Your task to perform on an android device: Show me productivity apps on the Play Store Image 0: 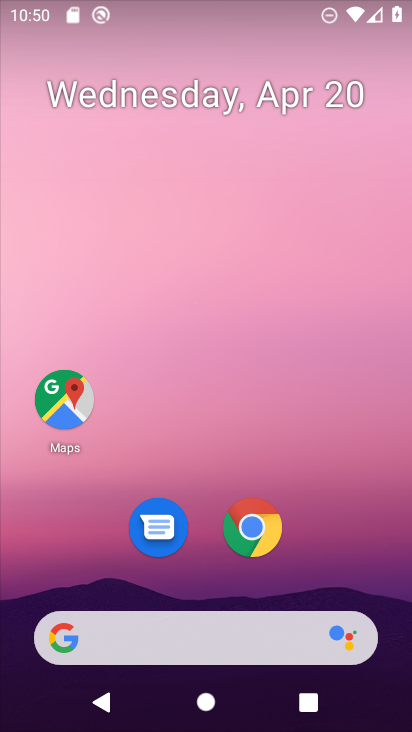
Step 0: drag from (204, 584) to (325, 0)
Your task to perform on an android device: Show me productivity apps on the Play Store Image 1: 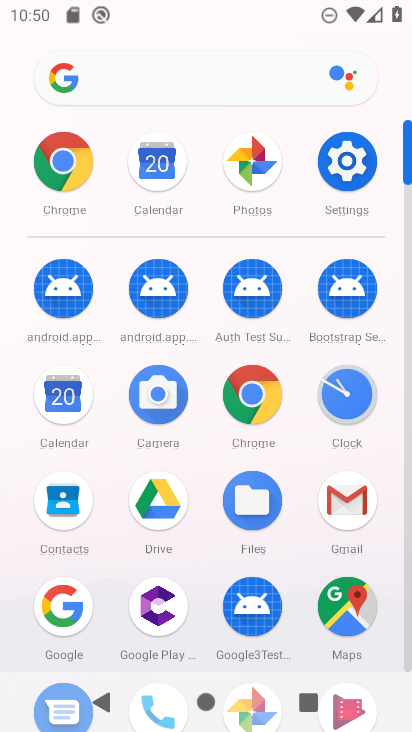
Step 1: drag from (208, 566) to (220, 347)
Your task to perform on an android device: Show me productivity apps on the Play Store Image 2: 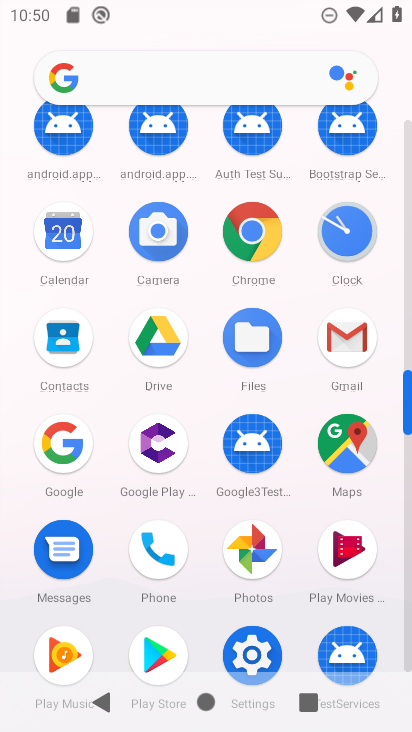
Step 2: click (152, 649)
Your task to perform on an android device: Show me productivity apps on the Play Store Image 3: 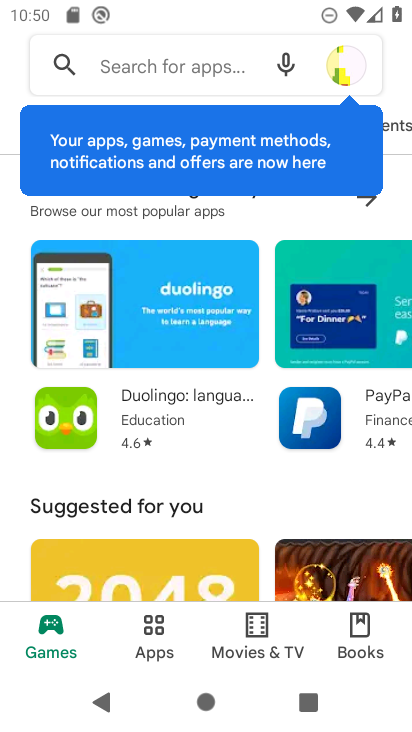
Step 3: click (141, 633)
Your task to perform on an android device: Show me productivity apps on the Play Store Image 4: 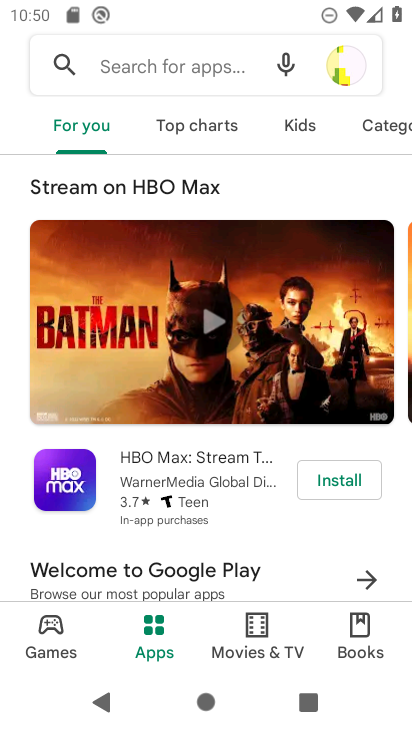
Step 4: drag from (374, 128) to (54, 106)
Your task to perform on an android device: Show me productivity apps on the Play Store Image 5: 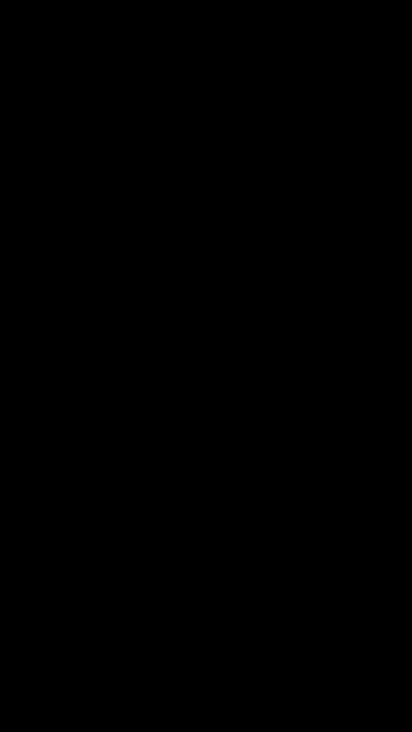
Step 5: drag from (274, 121) to (155, 105)
Your task to perform on an android device: Show me productivity apps on the Play Store Image 6: 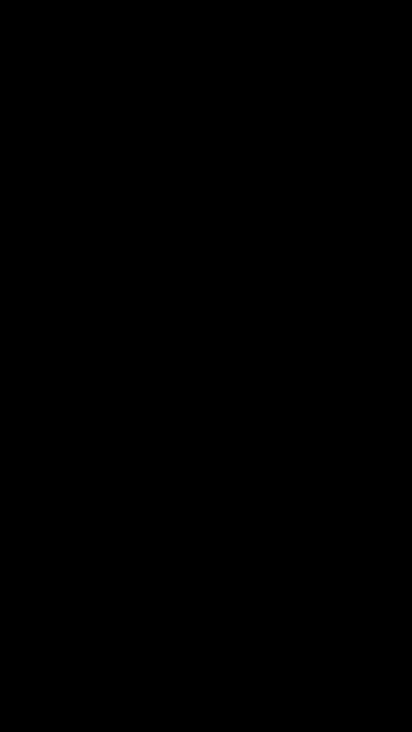
Step 6: drag from (175, 451) to (188, 221)
Your task to perform on an android device: Show me productivity apps on the Play Store Image 7: 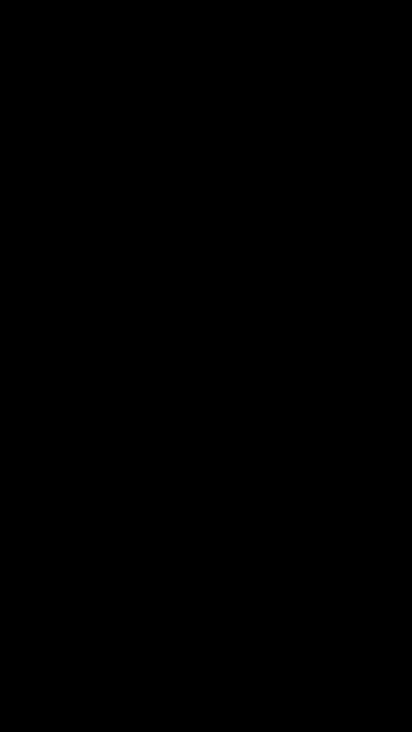
Step 7: drag from (203, 279) to (194, 493)
Your task to perform on an android device: Show me productivity apps on the Play Store Image 8: 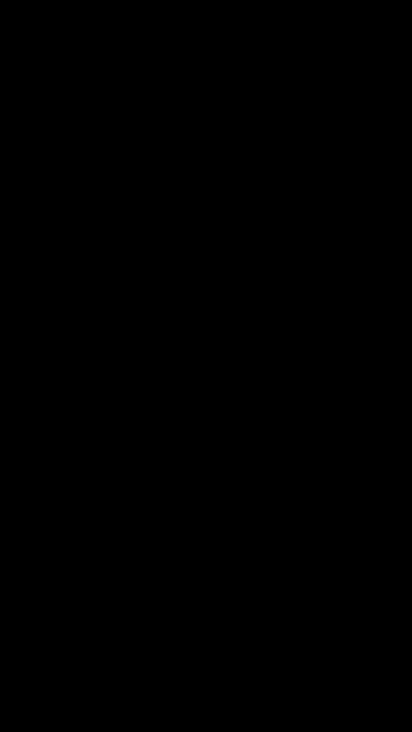
Step 8: drag from (301, 121) to (50, 100)
Your task to perform on an android device: Show me productivity apps on the Play Store Image 9: 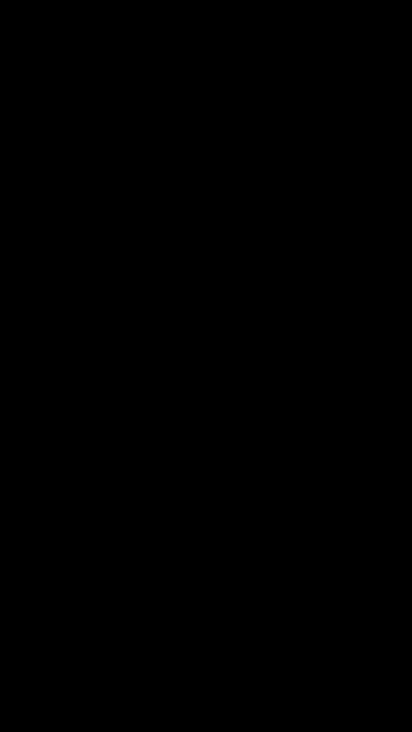
Step 9: drag from (293, 138) to (70, 103)
Your task to perform on an android device: Show me productivity apps on the Play Store Image 10: 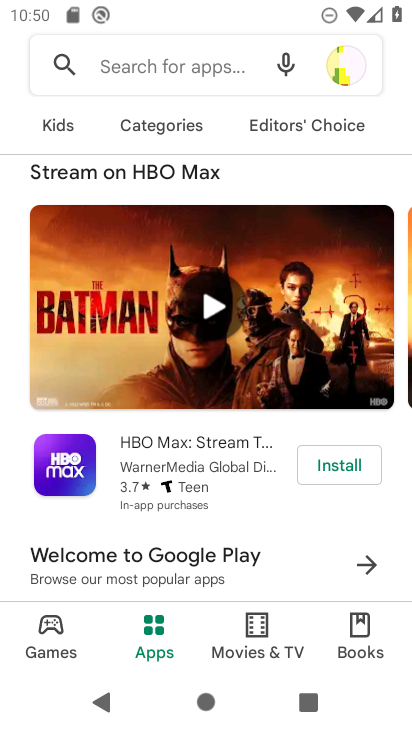
Step 10: drag from (299, 117) to (71, 98)
Your task to perform on an android device: Show me productivity apps on the Play Store Image 11: 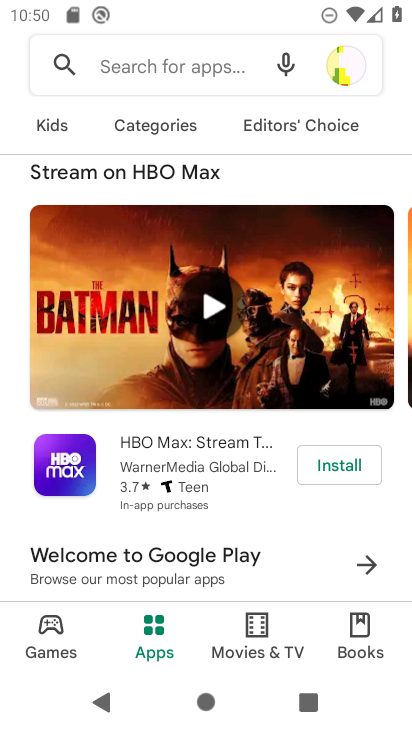
Step 11: click (132, 121)
Your task to perform on an android device: Show me productivity apps on the Play Store Image 12: 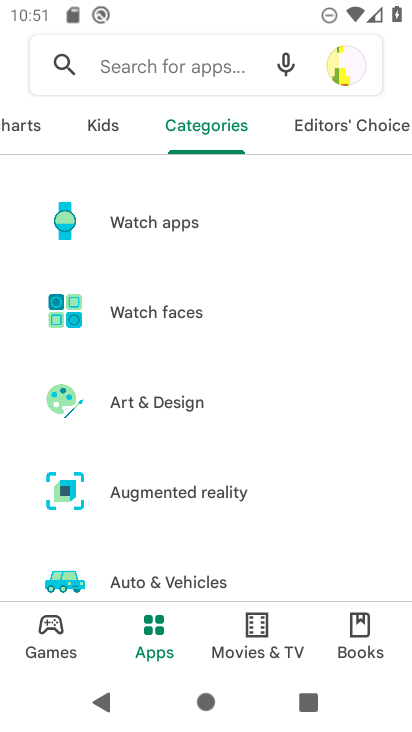
Step 12: drag from (173, 511) to (261, 126)
Your task to perform on an android device: Show me productivity apps on the Play Store Image 13: 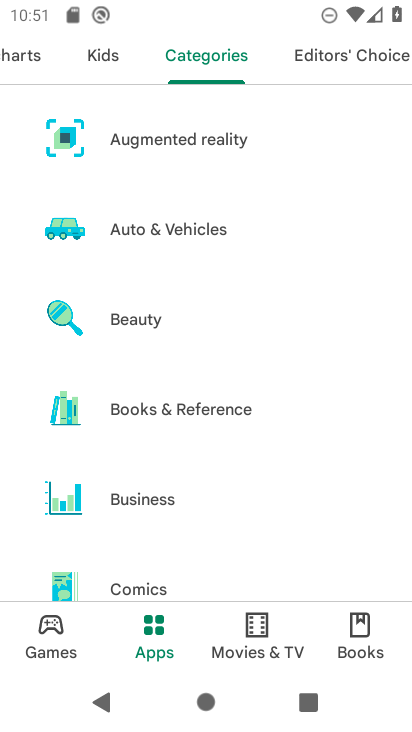
Step 13: drag from (190, 523) to (249, 36)
Your task to perform on an android device: Show me productivity apps on the Play Store Image 14: 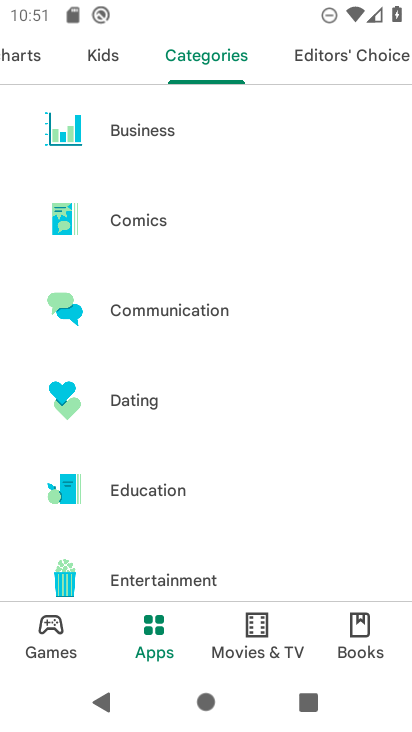
Step 14: drag from (159, 532) to (213, 138)
Your task to perform on an android device: Show me productivity apps on the Play Store Image 15: 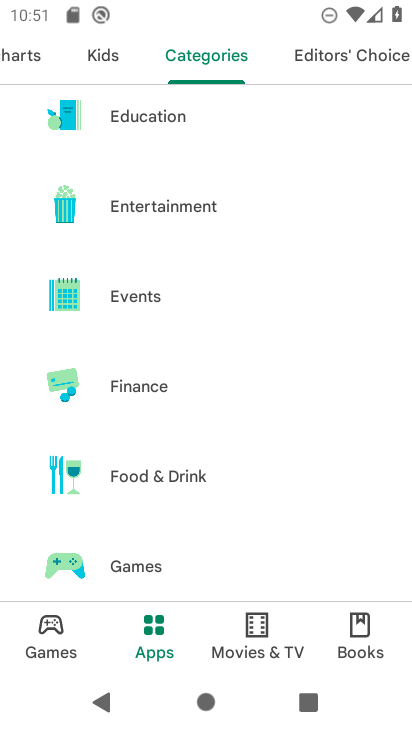
Step 15: drag from (139, 482) to (219, 192)
Your task to perform on an android device: Show me productivity apps on the Play Store Image 16: 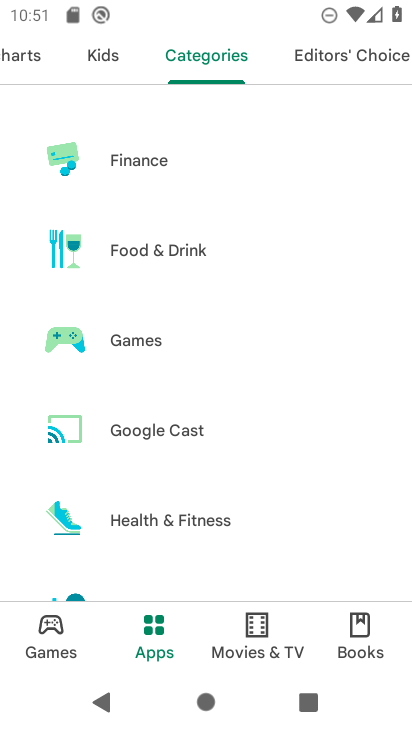
Step 16: drag from (164, 515) to (216, 202)
Your task to perform on an android device: Show me productivity apps on the Play Store Image 17: 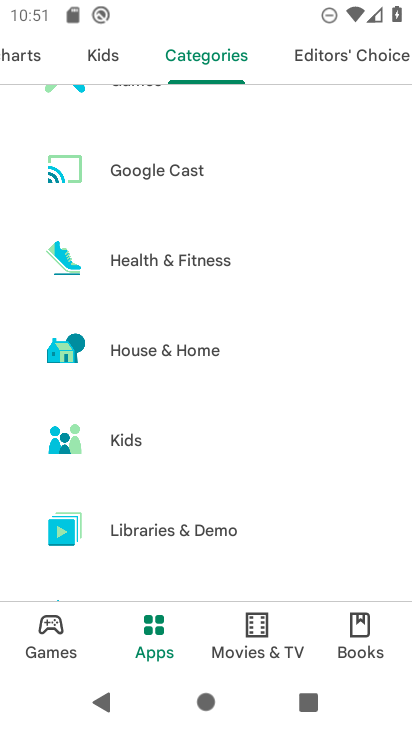
Step 17: drag from (148, 438) to (179, 235)
Your task to perform on an android device: Show me productivity apps on the Play Store Image 18: 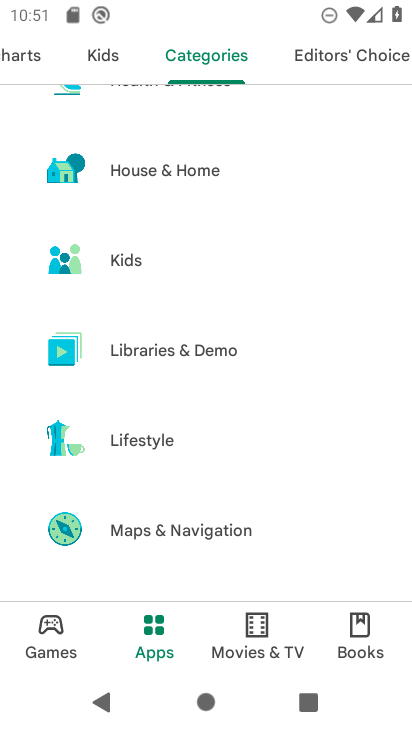
Step 18: drag from (152, 496) to (187, 224)
Your task to perform on an android device: Show me productivity apps on the Play Store Image 19: 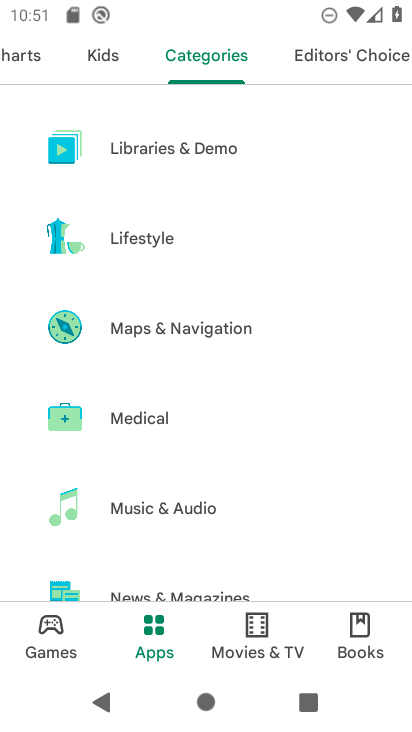
Step 19: drag from (178, 573) to (243, 274)
Your task to perform on an android device: Show me productivity apps on the Play Store Image 20: 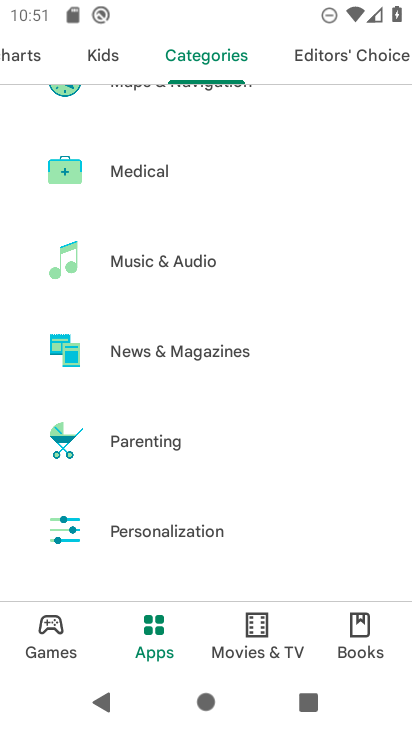
Step 20: drag from (159, 490) to (227, 170)
Your task to perform on an android device: Show me productivity apps on the Play Store Image 21: 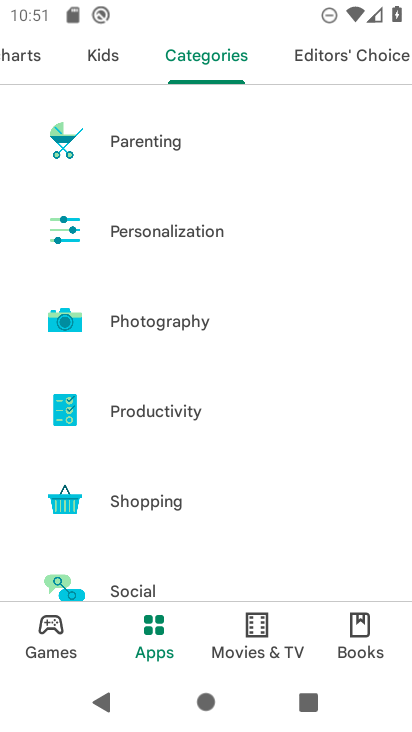
Step 21: drag from (130, 541) to (209, 207)
Your task to perform on an android device: Show me productivity apps on the Play Store Image 22: 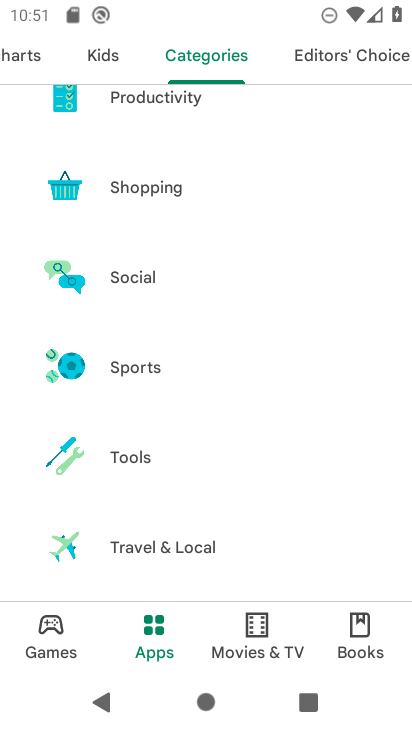
Step 22: drag from (144, 488) to (205, 202)
Your task to perform on an android device: Show me productivity apps on the Play Store Image 23: 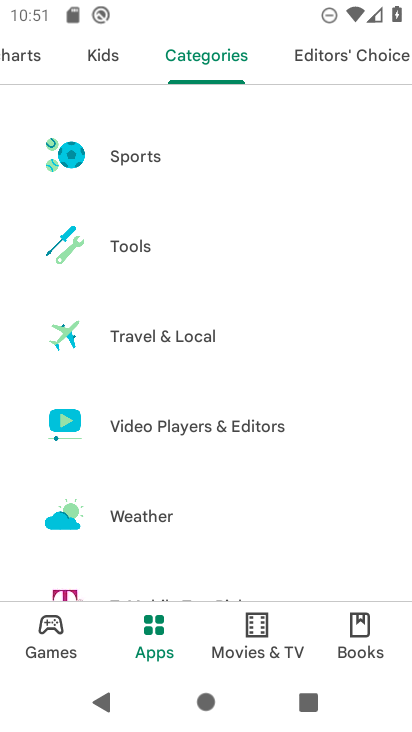
Step 23: drag from (213, 187) to (232, 158)
Your task to perform on an android device: Show me productivity apps on the Play Store Image 24: 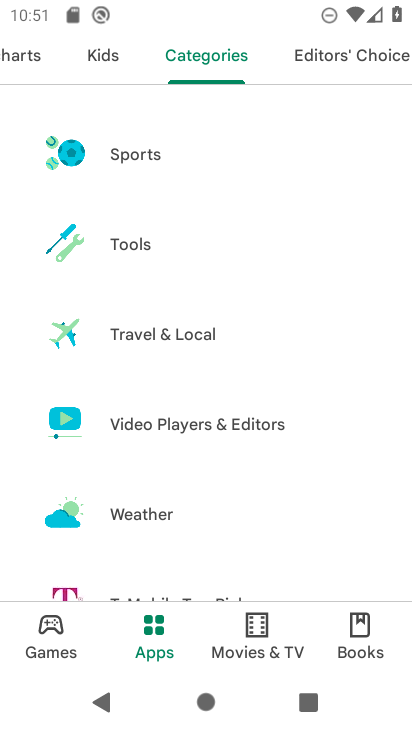
Step 24: drag from (173, 511) to (229, 109)
Your task to perform on an android device: Show me productivity apps on the Play Store Image 25: 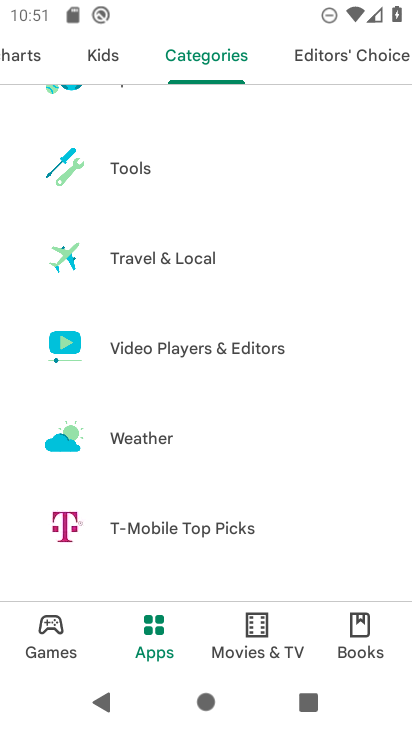
Step 25: drag from (167, 223) to (168, 595)
Your task to perform on an android device: Show me productivity apps on the Play Store Image 26: 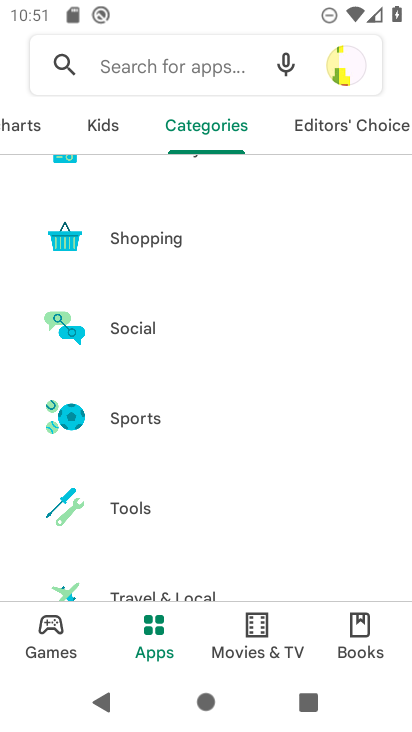
Step 26: drag from (177, 260) to (193, 462)
Your task to perform on an android device: Show me productivity apps on the Play Store Image 27: 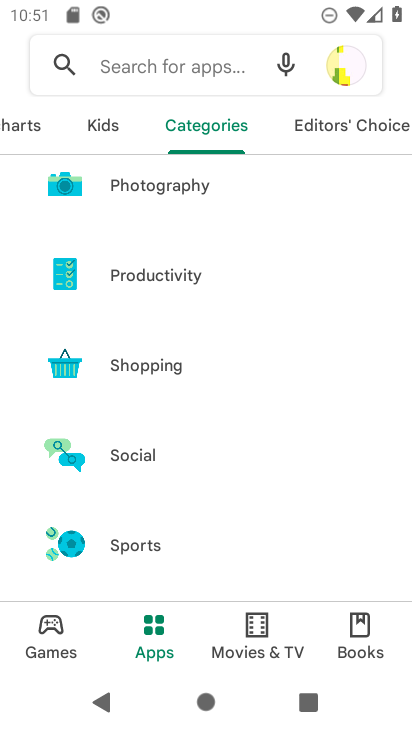
Step 27: click (163, 278)
Your task to perform on an android device: Show me productivity apps on the Play Store Image 28: 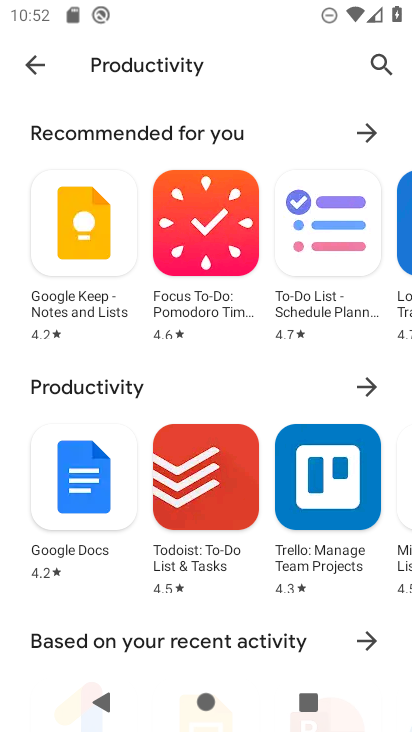
Step 28: task complete